Your task to perform on an android device: toggle show notifications on the lock screen Image 0: 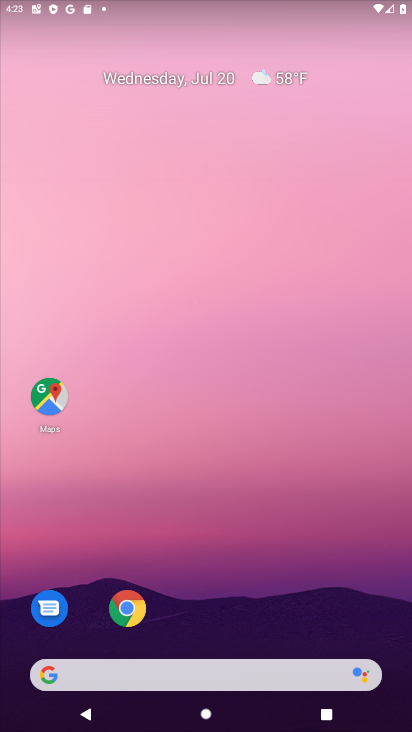
Step 0: drag from (193, 648) to (236, 30)
Your task to perform on an android device: toggle show notifications on the lock screen Image 1: 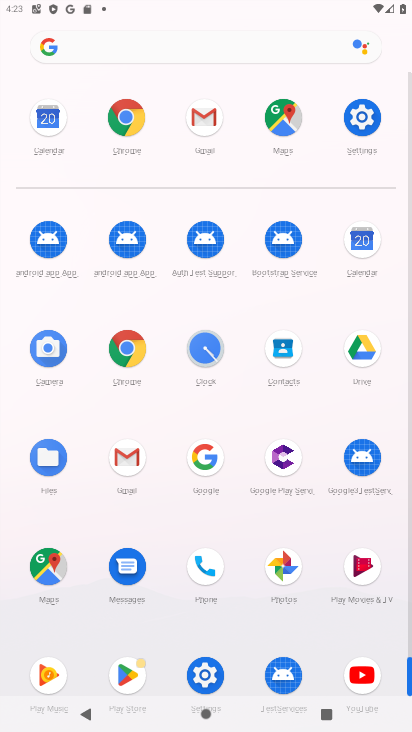
Step 1: click (200, 674)
Your task to perform on an android device: toggle show notifications on the lock screen Image 2: 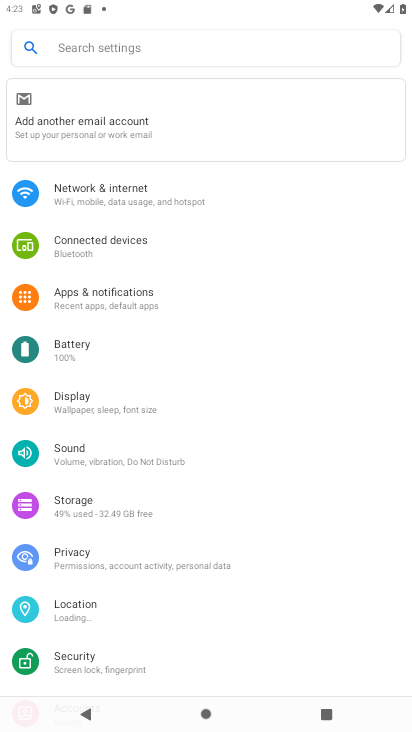
Step 2: click (112, 292)
Your task to perform on an android device: toggle show notifications on the lock screen Image 3: 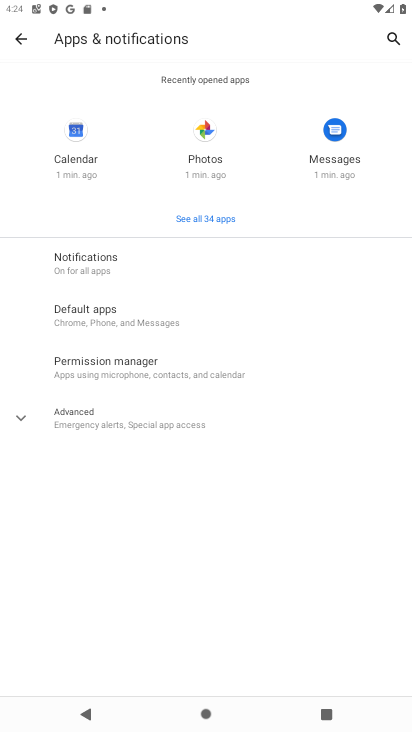
Step 3: click (103, 272)
Your task to perform on an android device: toggle show notifications on the lock screen Image 4: 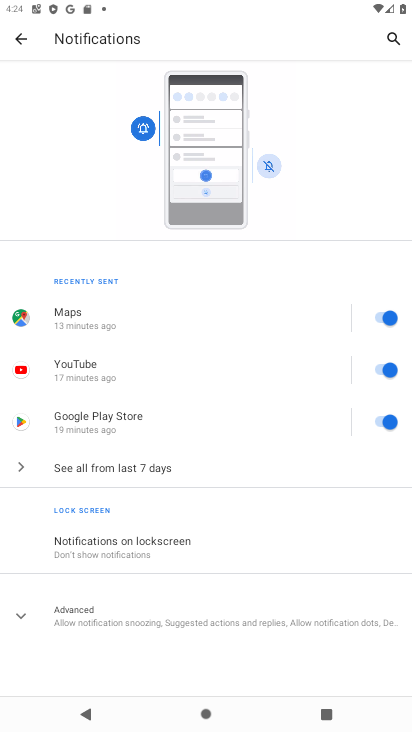
Step 4: click (135, 544)
Your task to perform on an android device: toggle show notifications on the lock screen Image 5: 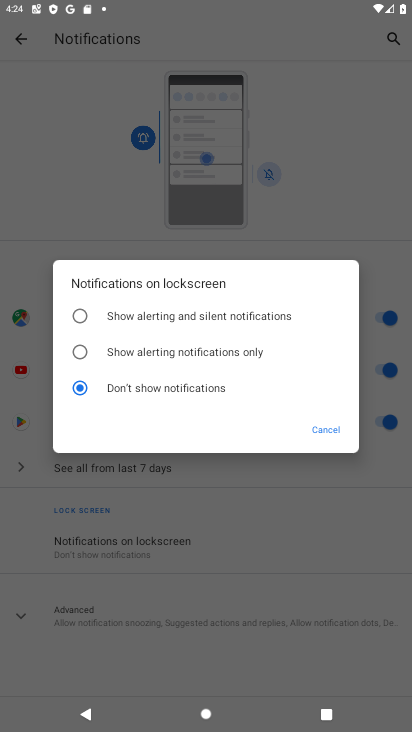
Step 5: click (148, 312)
Your task to perform on an android device: toggle show notifications on the lock screen Image 6: 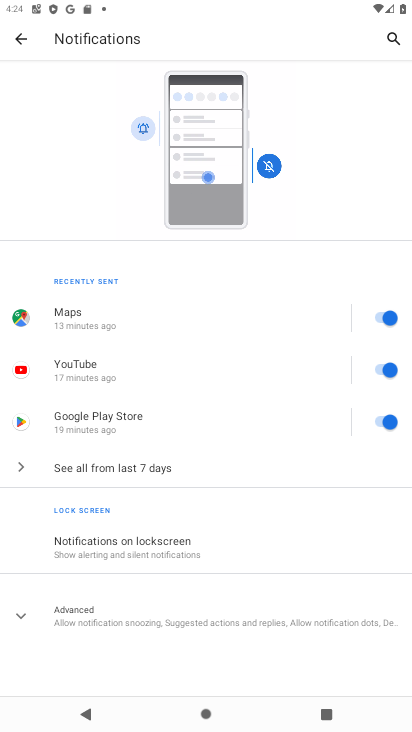
Step 6: task complete